Your task to perform on an android device: toggle translation in the chrome app Image 0: 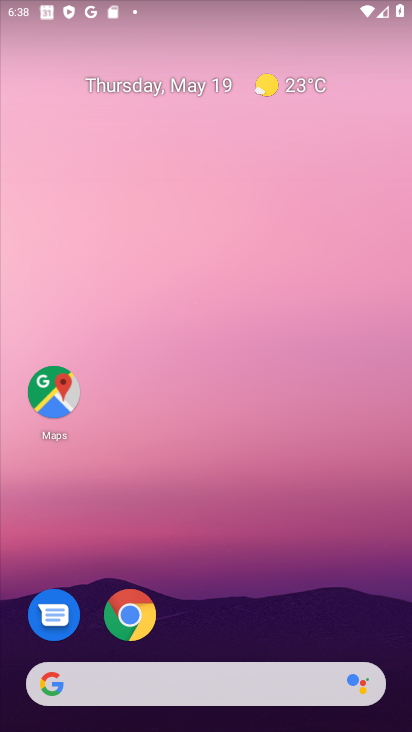
Step 0: drag from (345, 606) to (216, 42)
Your task to perform on an android device: toggle translation in the chrome app Image 1: 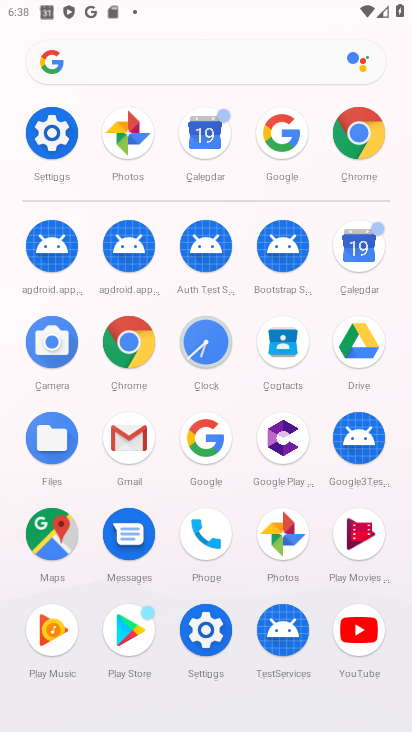
Step 1: click (341, 139)
Your task to perform on an android device: toggle translation in the chrome app Image 2: 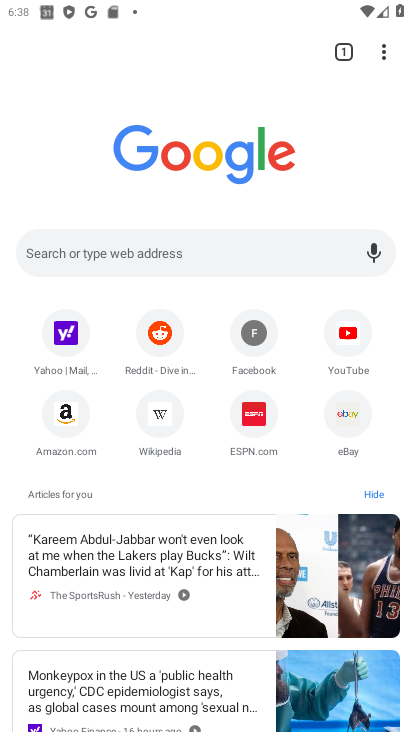
Step 2: click (383, 43)
Your task to perform on an android device: toggle translation in the chrome app Image 3: 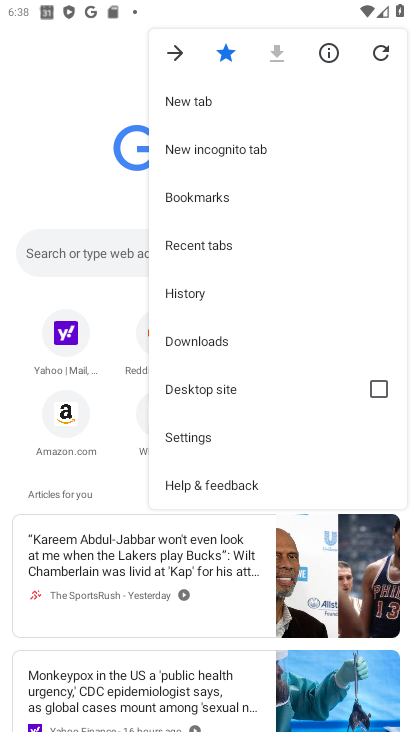
Step 3: click (205, 440)
Your task to perform on an android device: toggle translation in the chrome app Image 4: 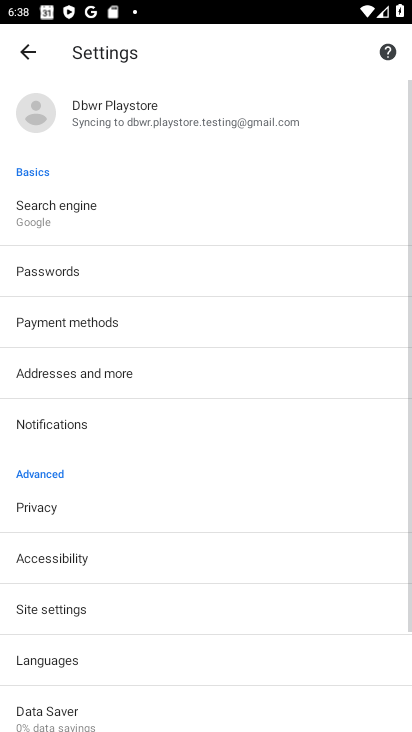
Step 4: click (106, 675)
Your task to perform on an android device: toggle translation in the chrome app Image 5: 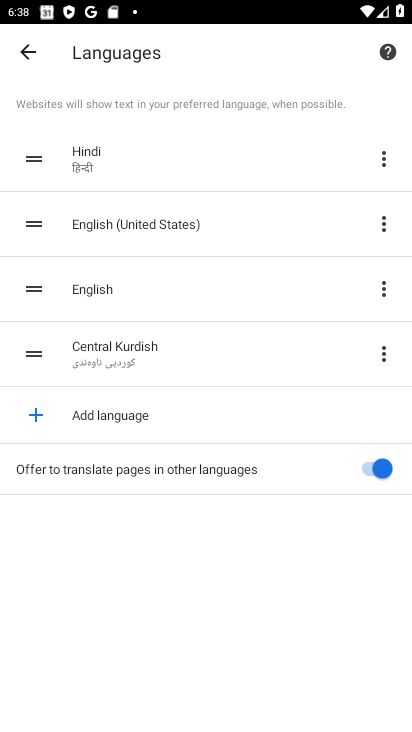
Step 5: click (359, 469)
Your task to perform on an android device: toggle translation in the chrome app Image 6: 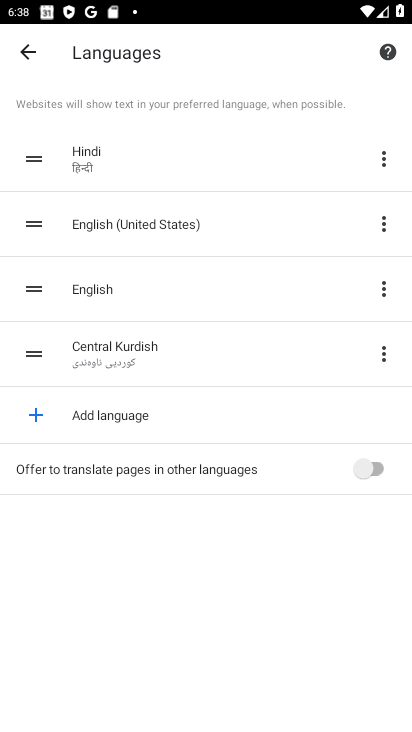
Step 6: task complete